Your task to perform on an android device: delete location history Image 0: 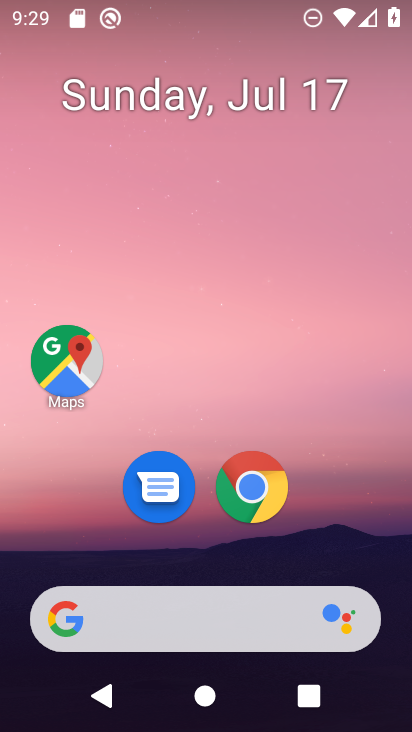
Step 0: press home button
Your task to perform on an android device: delete location history Image 1: 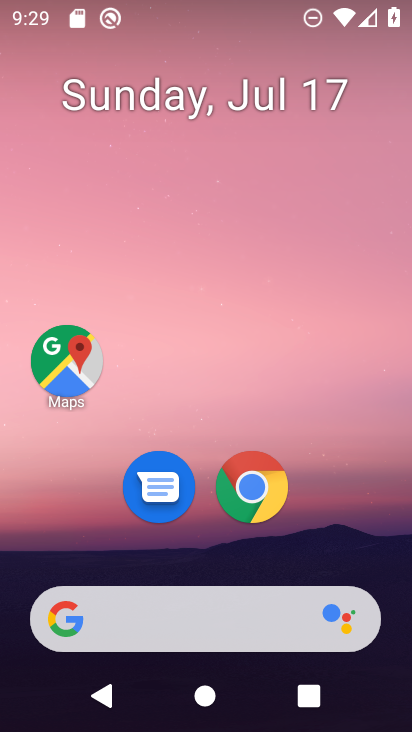
Step 1: click (51, 365)
Your task to perform on an android device: delete location history Image 2: 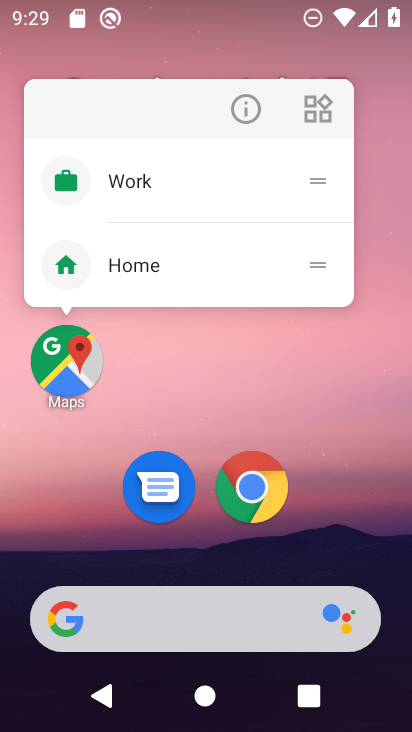
Step 2: click (278, 381)
Your task to perform on an android device: delete location history Image 3: 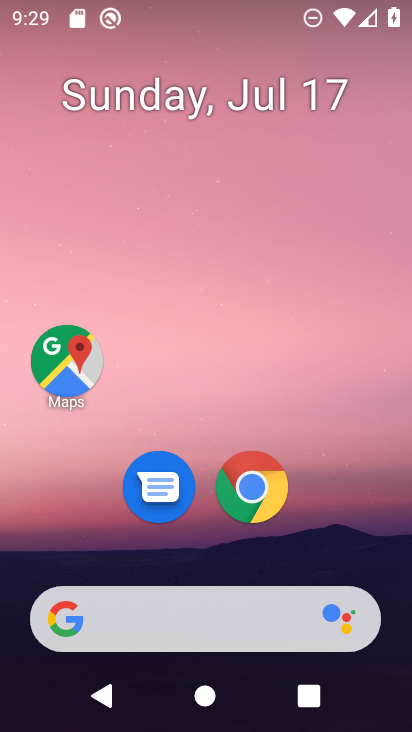
Step 3: drag from (329, 551) to (340, 106)
Your task to perform on an android device: delete location history Image 4: 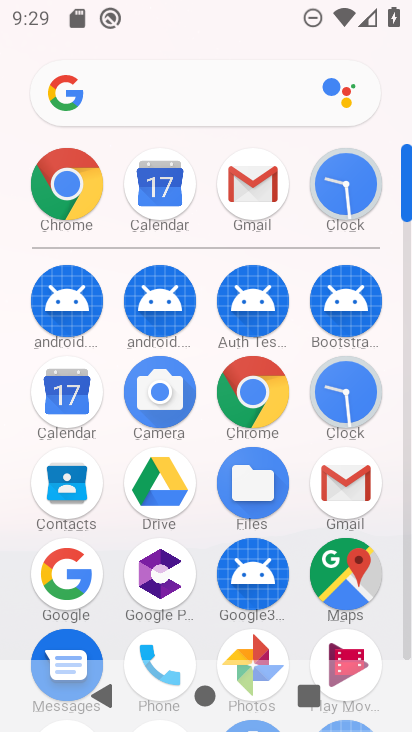
Step 4: click (341, 576)
Your task to perform on an android device: delete location history Image 5: 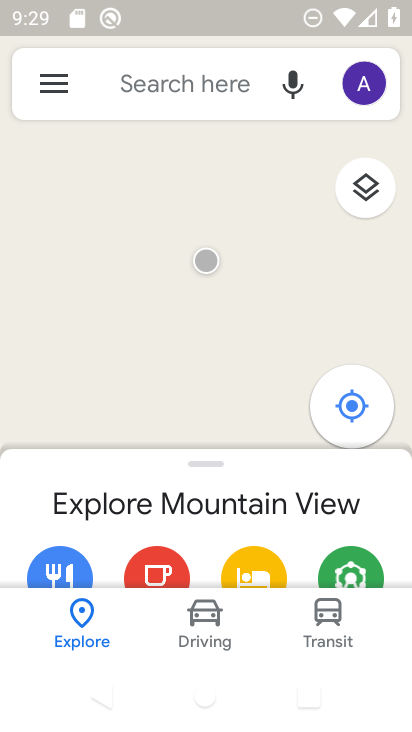
Step 5: click (55, 84)
Your task to perform on an android device: delete location history Image 6: 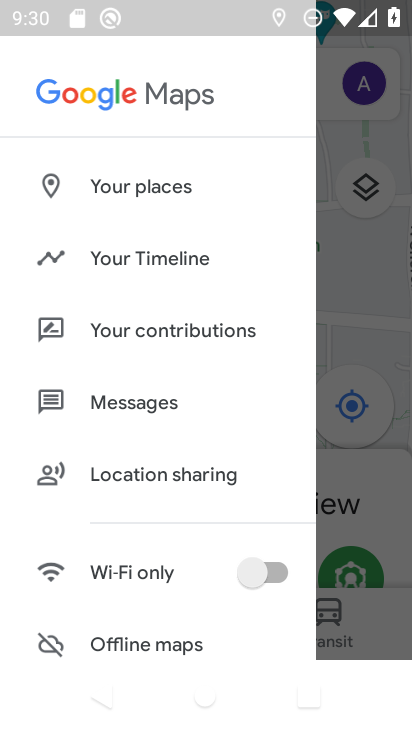
Step 6: click (140, 263)
Your task to perform on an android device: delete location history Image 7: 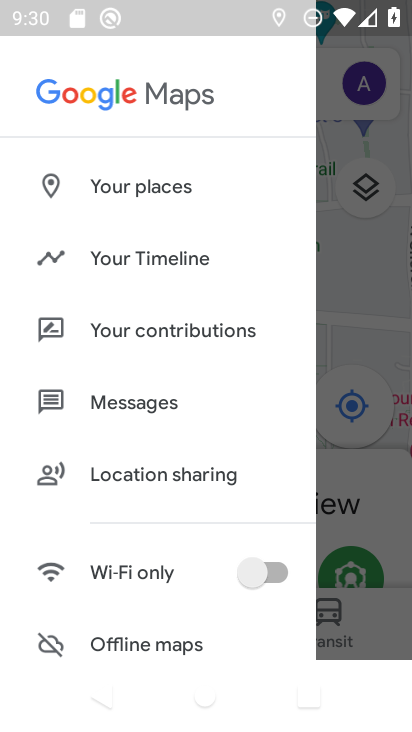
Step 7: click (150, 256)
Your task to perform on an android device: delete location history Image 8: 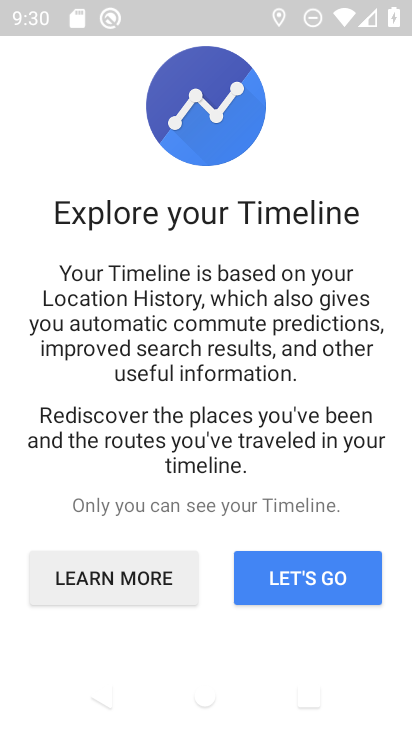
Step 8: click (315, 565)
Your task to perform on an android device: delete location history Image 9: 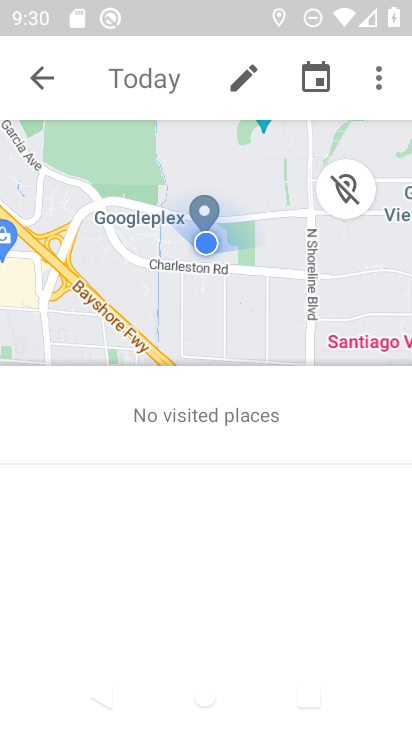
Step 9: click (382, 84)
Your task to perform on an android device: delete location history Image 10: 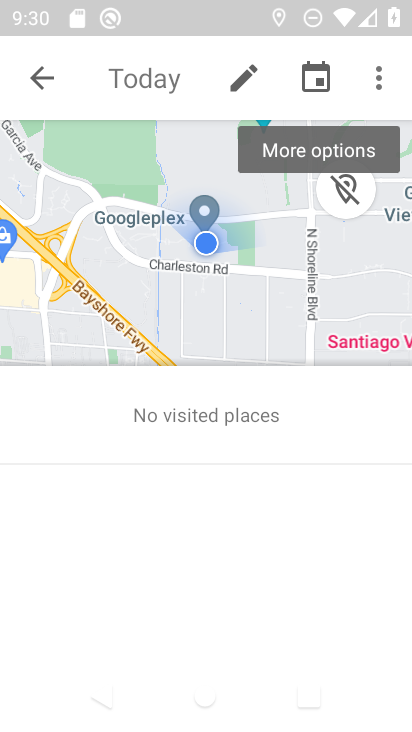
Step 10: click (382, 84)
Your task to perform on an android device: delete location history Image 11: 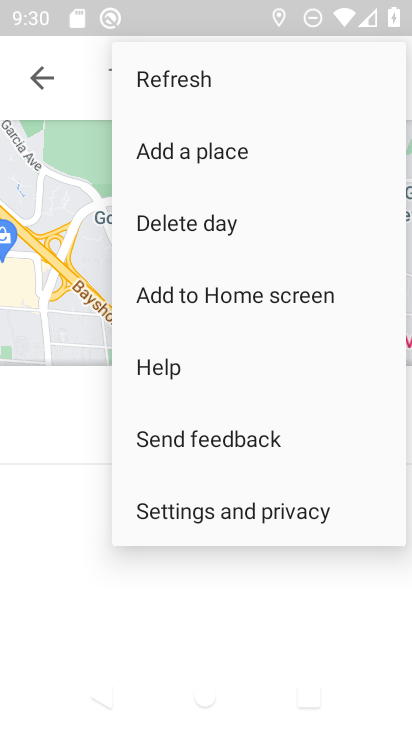
Step 11: click (213, 526)
Your task to perform on an android device: delete location history Image 12: 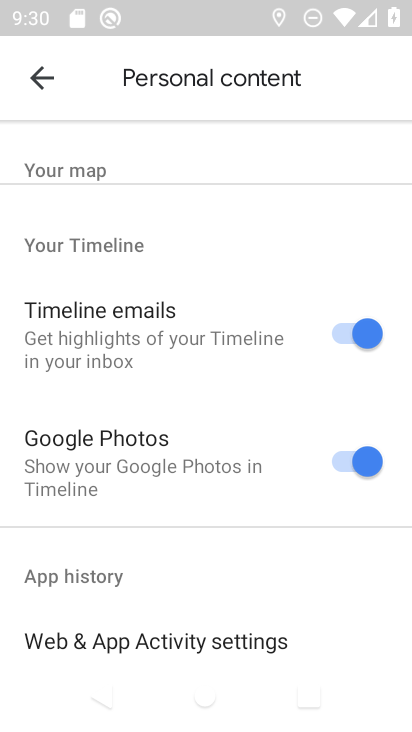
Step 12: drag from (336, 596) to (369, 29)
Your task to perform on an android device: delete location history Image 13: 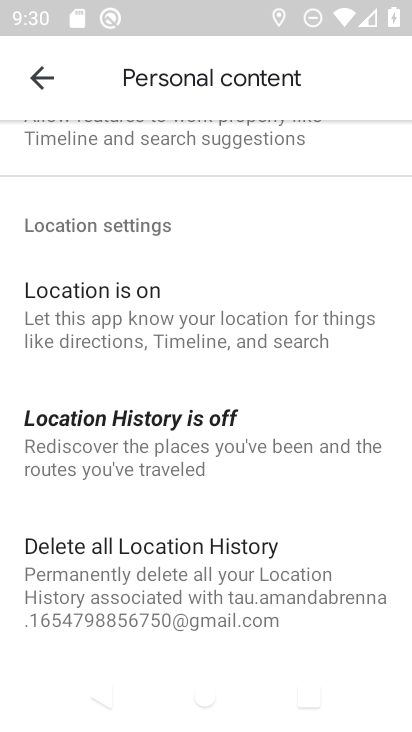
Step 13: click (120, 547)
Your task to perform on an android device: delete location history Image 14: 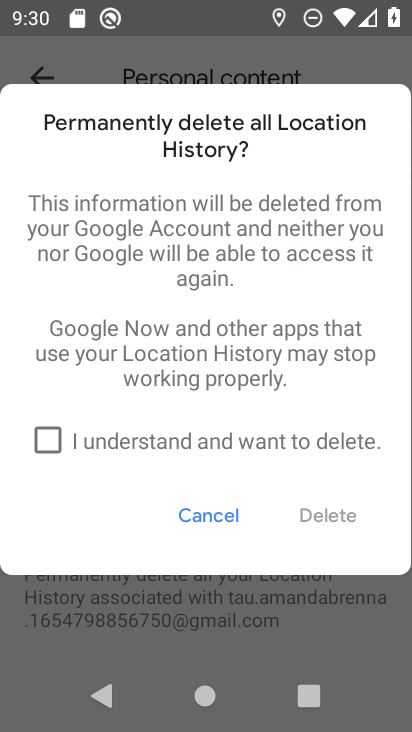
Step 14: click (43, 440)
Your task to perform on an android device: delete location history Image 15: 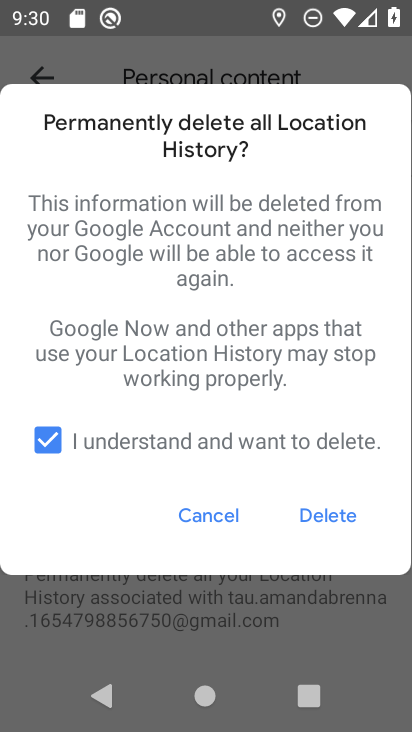
Step 15: click (334, 508)
Your task to perform on an android device: delete location history Image 16: 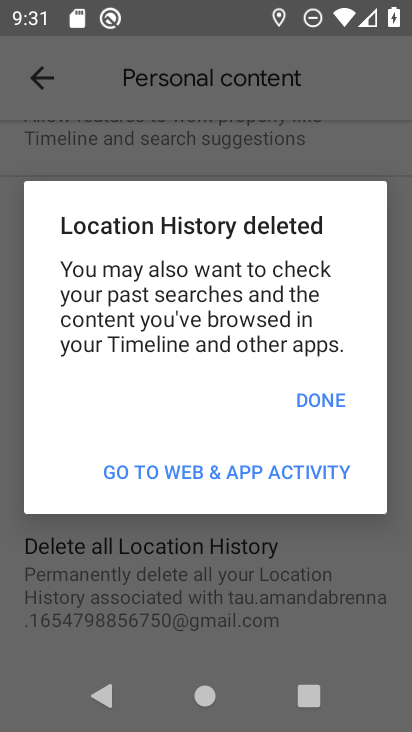
Step 16: click (332, 394)
Your task to perform on an android device: delete location history Image 17: 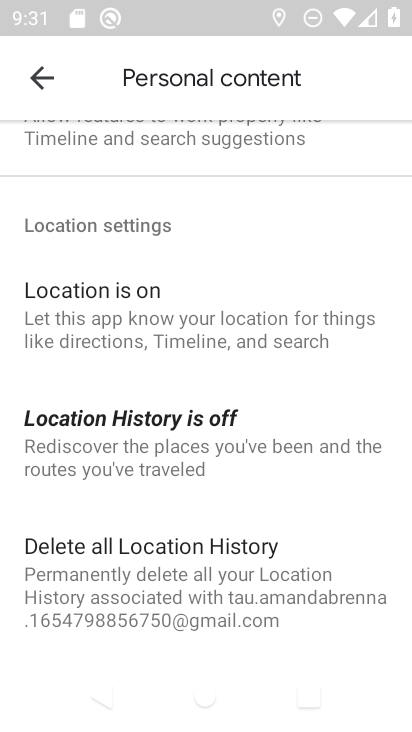
Step 17: task complete